Your task to perform on an android device: Open settings on Google Maps Image 0: 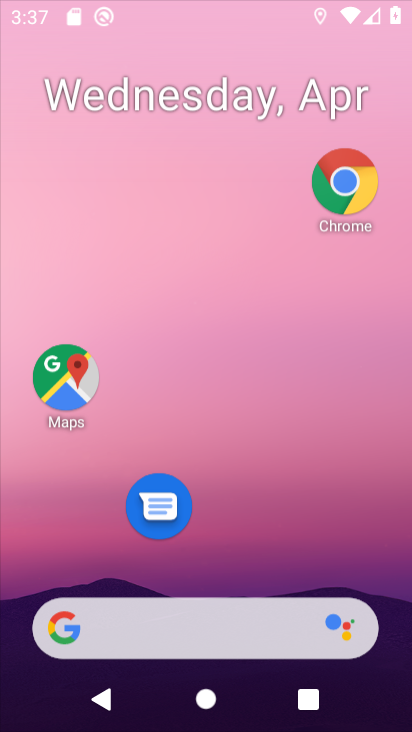
Step 0: click (355, 189)
Your task to perform on an android device: Open settings on Google Maps Image 1: 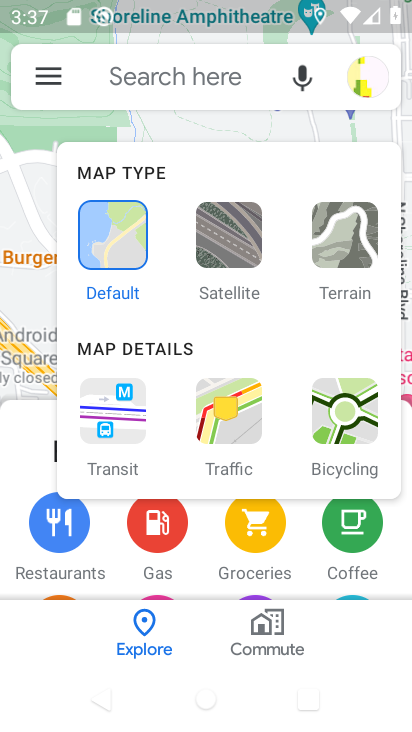
Step 1: click (35, 62)
Your task to perform on an android device: Open settings on Google Maps Image 2: 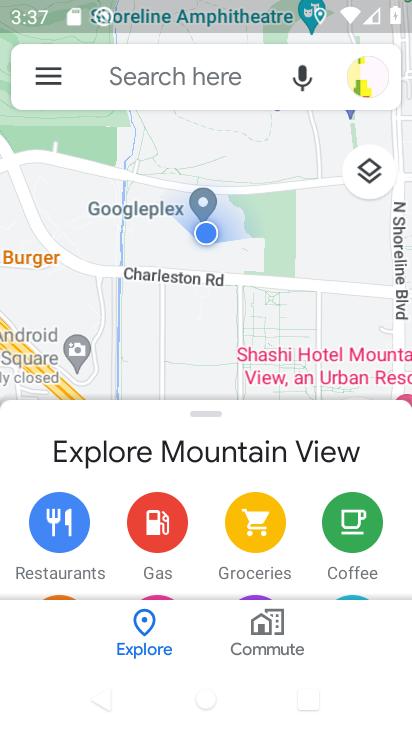
Step 2: click (37, 72)
Your task to perform on an android device: Open settings on Google Maps Image 3: 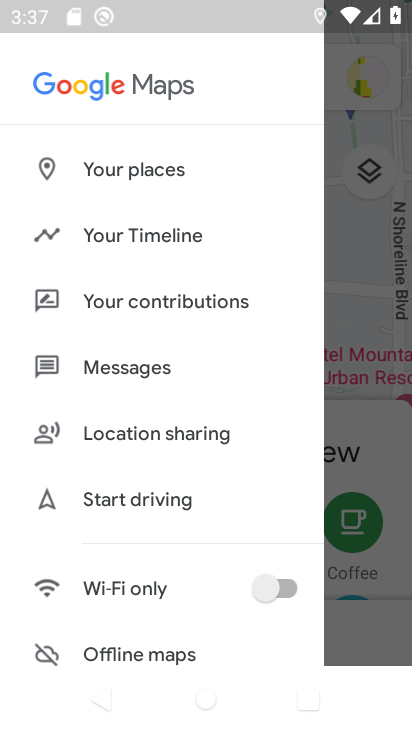
Step 3: drag from (135, 536) to (261, 166)
Your task to perform on an android device: Open settings on Google Maps Image 4: 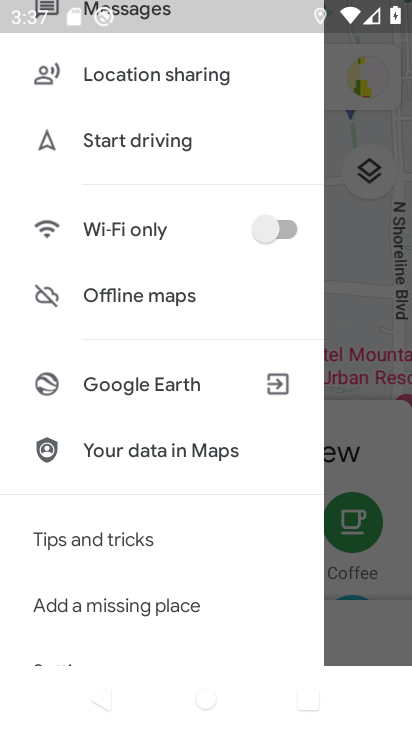
Step 4: drag from (110, 569) to (227, 252)
Your task to perform on an android device: Open settings on Google Maps Image 5: 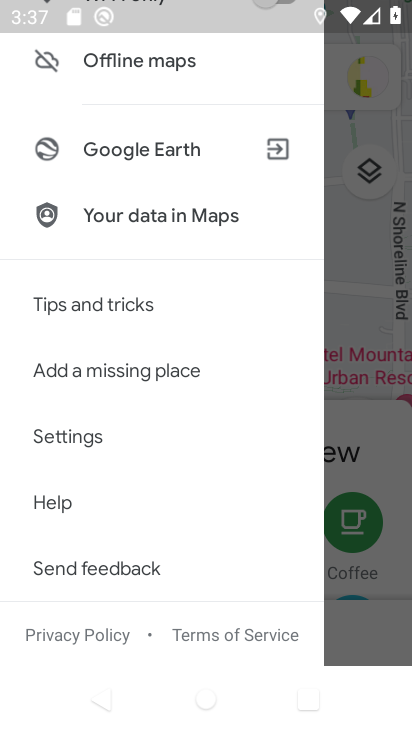
Step 5: click (62, 435)
Your task to perform on an android device: Open settings on Google Maps Image 6: 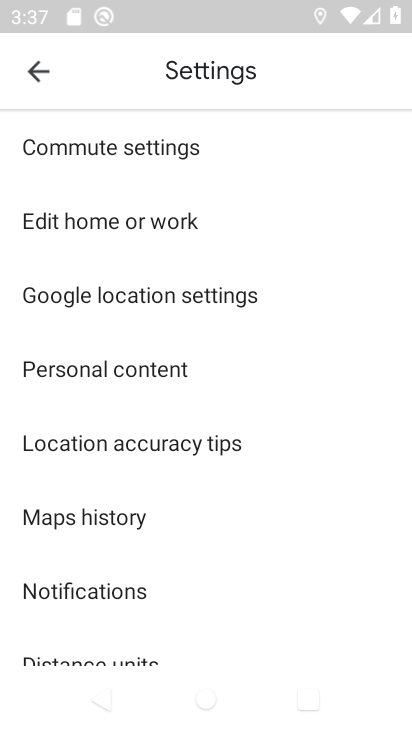
Step 6: task complete